Your task to perform on an android device: turn on translation in the chrome app Image 0: 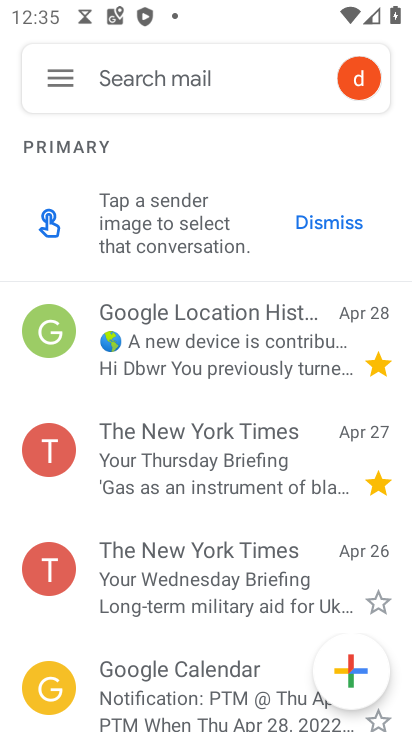
Step 0: press home button
Your task to perform on an android device: turn on translation in the chrome app Image 1: 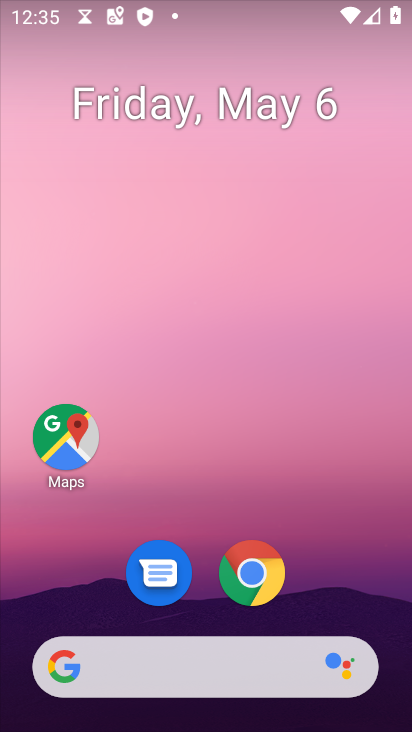
Step 1: drag from (330, 533) to (313, 111)
Your task to perform on an android device: turn on translation in the chrome app Image 2: 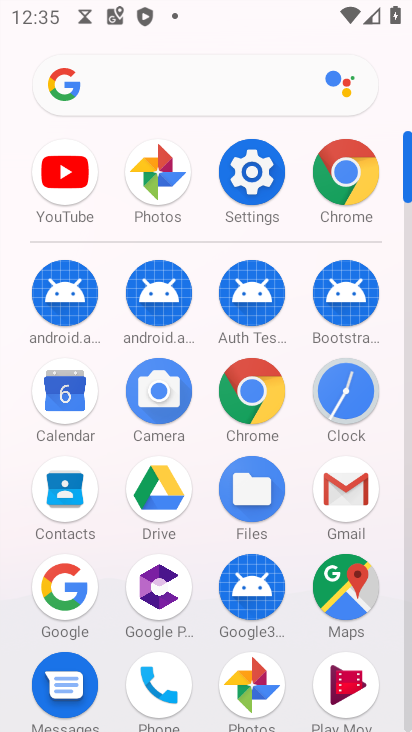
Step 2: click (334, 182)
Your task to perform on an android device: turn on translation in the chrome app Image 3: 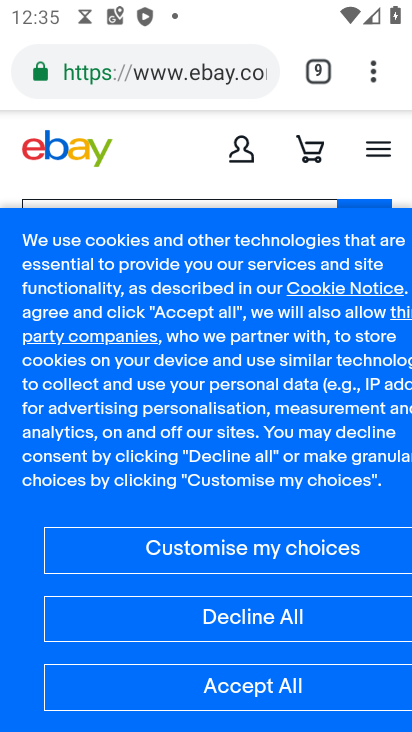
Step 3: click (356, 70)
Your task to perform on an android device: turn on translation in the chrome app Image 4: 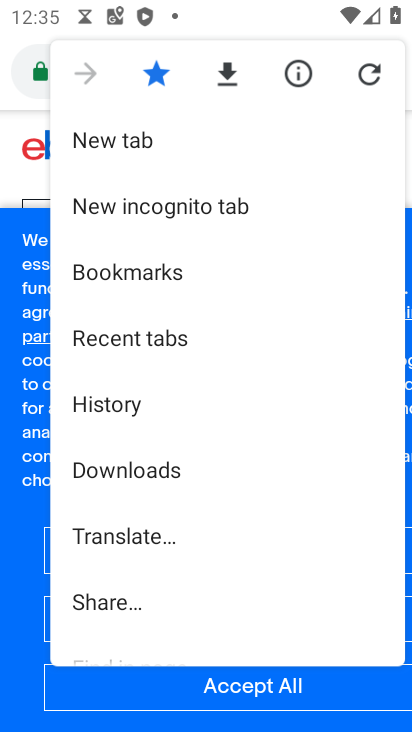
Step 4: drag from (256, 589) to (252, 288)
Your task to perform on an android device: turn on translation in the chrome app Image 5: 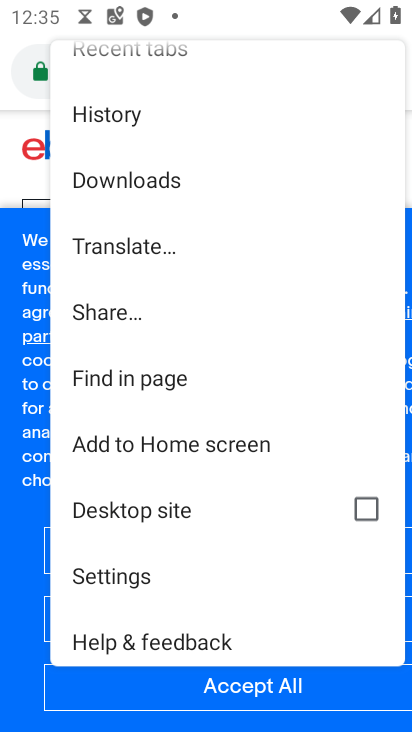
Step 5: click (141, 578)
Your task to perform on an android device: turn on translation in the chrome app Image 6: 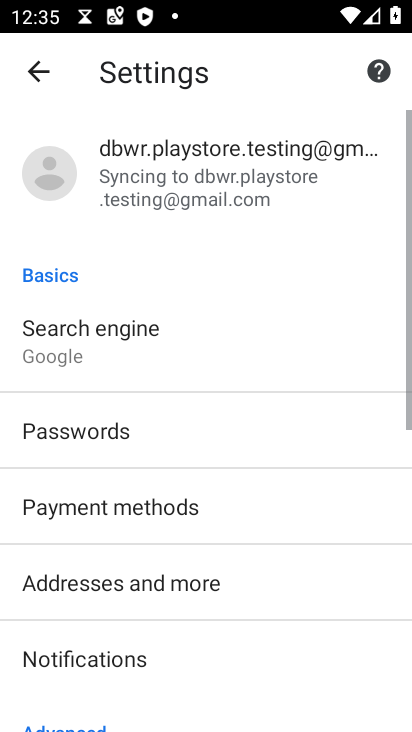
Step 6: drag from (196, 686) to (188, 399)
Your task to perform on an android device: turn on translation in the chrome app Image 7: 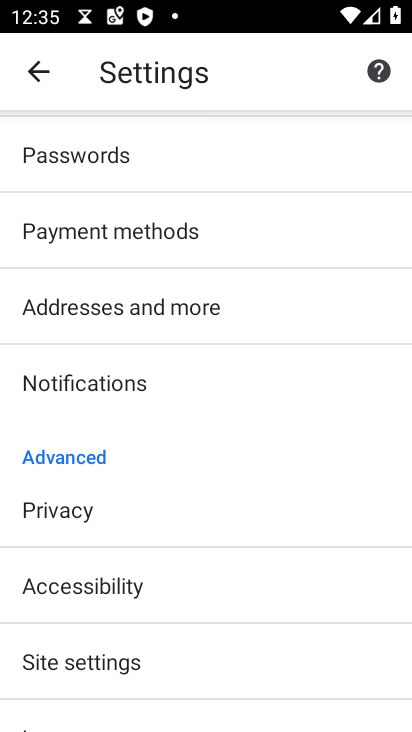
Step 7: drag from (122, 676) to (151, 507)
Your task to perform on an android device: turn on translation in the chrome app Image 8: 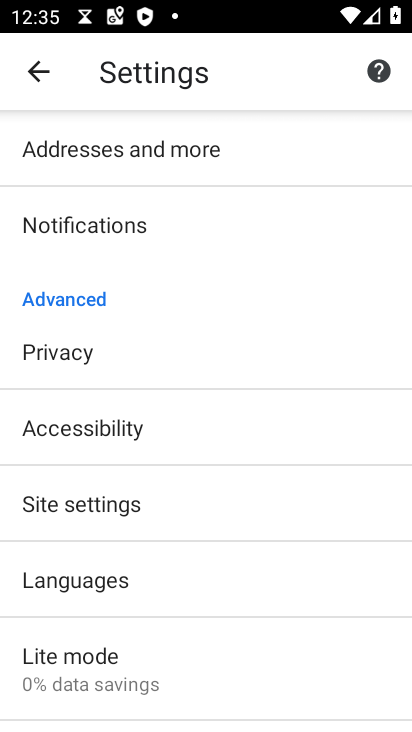
Step 8: click (147, 583)
Your task to perform on an android device: turn on translation in the chrome app Image 9: 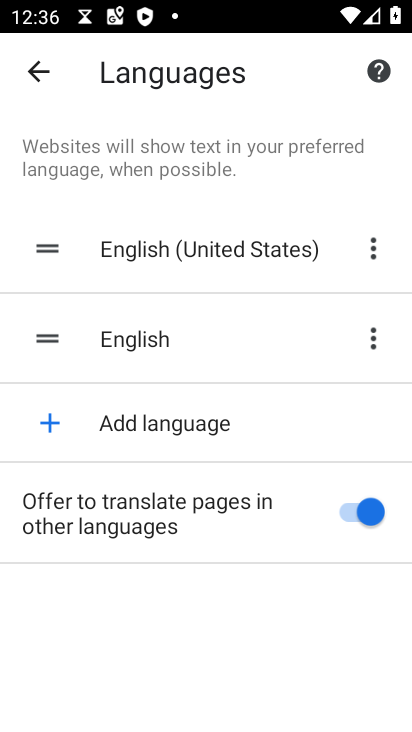
Step 9: task complete